Your task to perform on an android device: Toggle the flashlight Image 0: 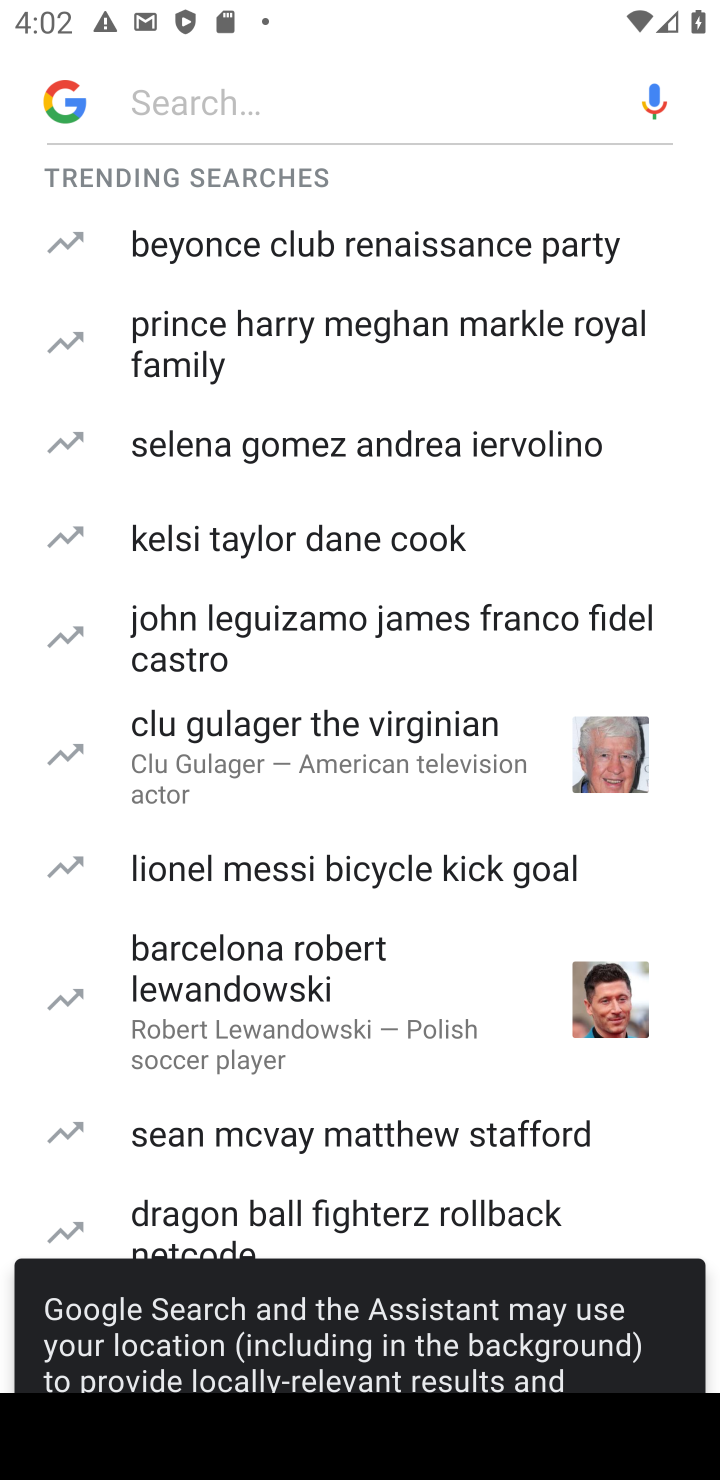
Step 0: press home button
Your task to perform on an android device: Toggle the flashlight Image 1: 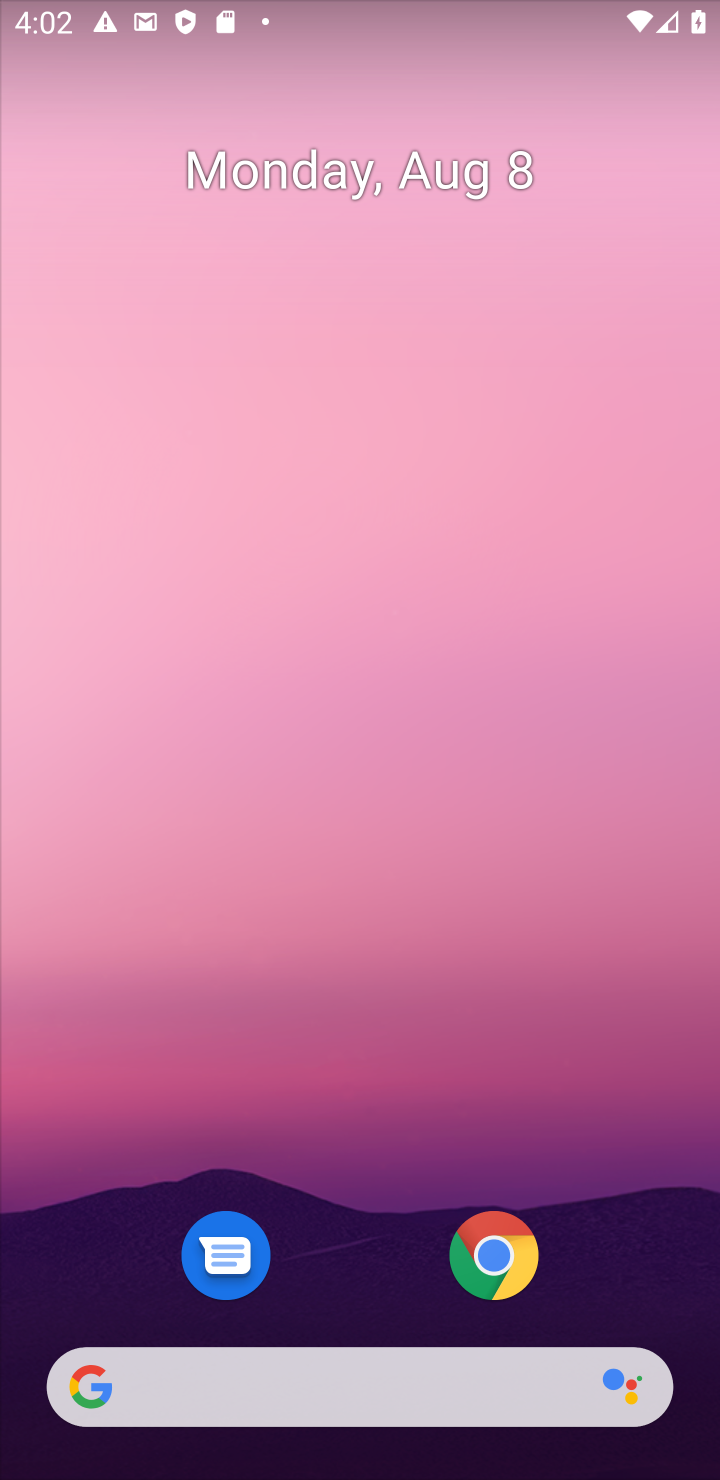
Step 1: drag from (319, 1367) to (525, 341)
Your task to perform on an android device: Toggle the flashlight Image 2: 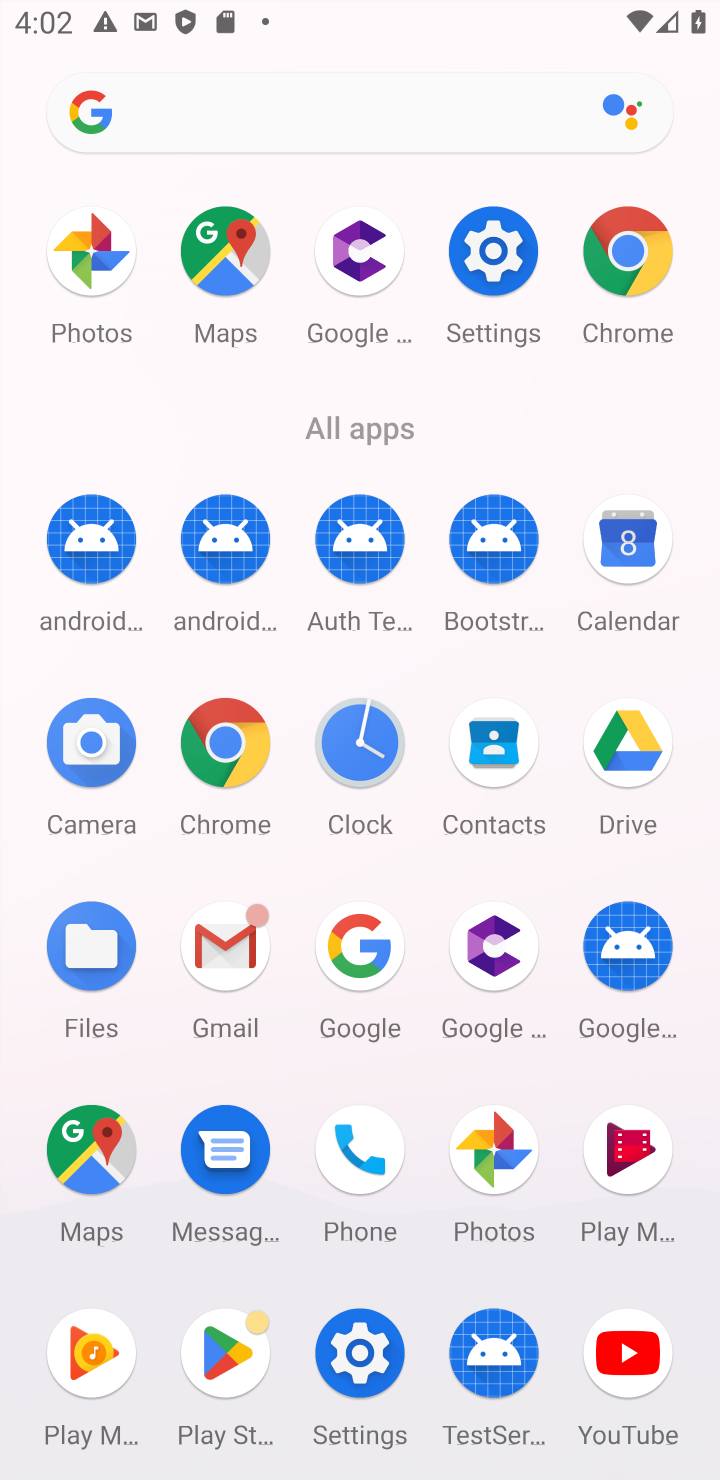
Step 2: click (491, 252)
Your task to perform on an android device: Toggle the flashlight Image 3: 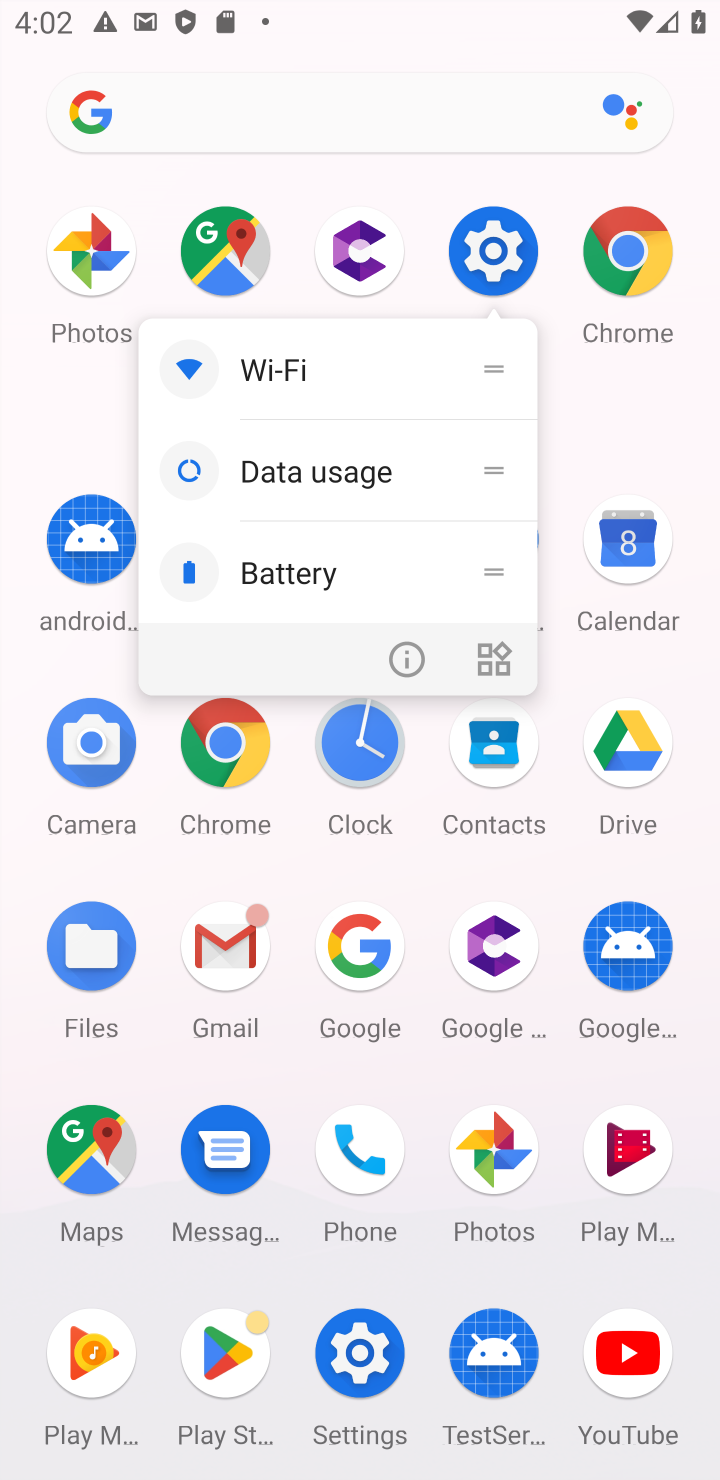
Step 3: click (488, 248)
Your task to perform on an android device: Toggle the flashlight Image 4: 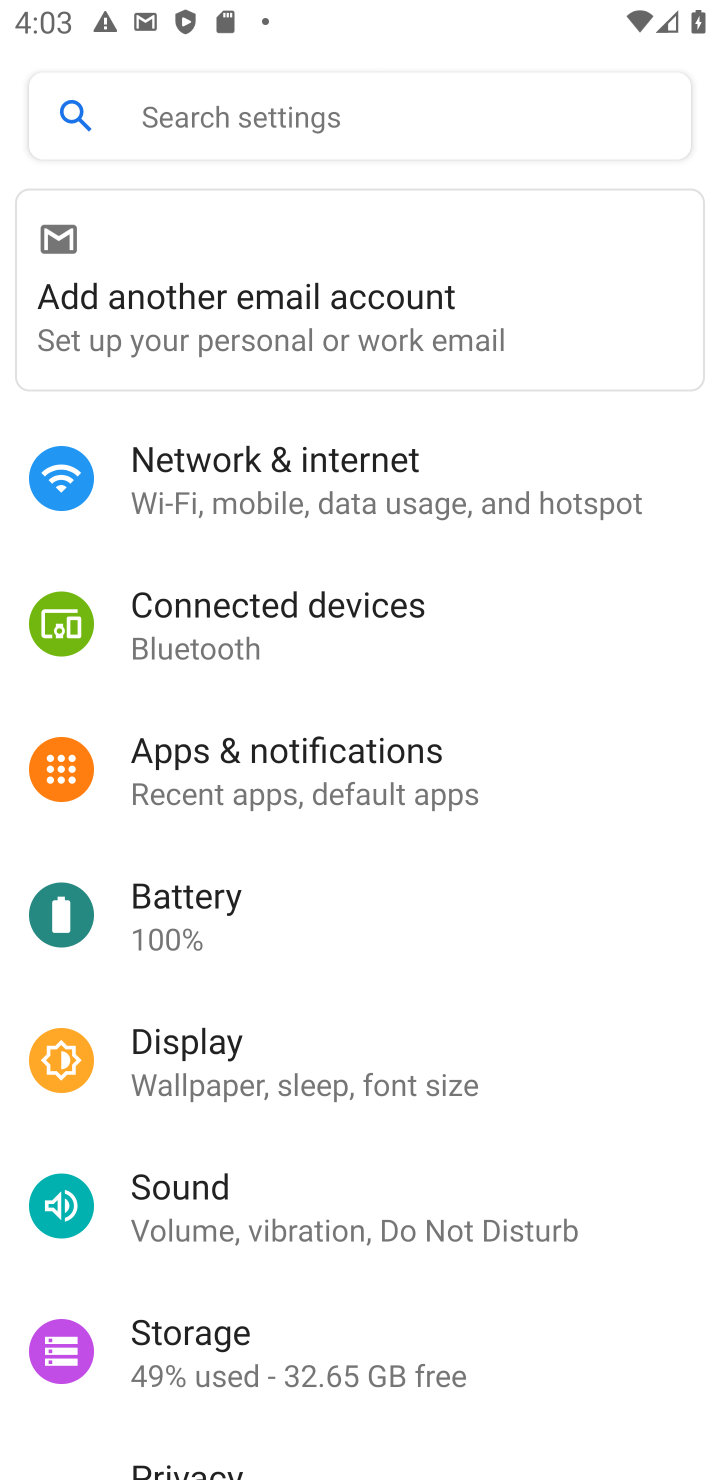
Step 4: drag from (405, 898) to (501, 658)
Your task to perform on an android device: Toggle the flashlight Image 5: 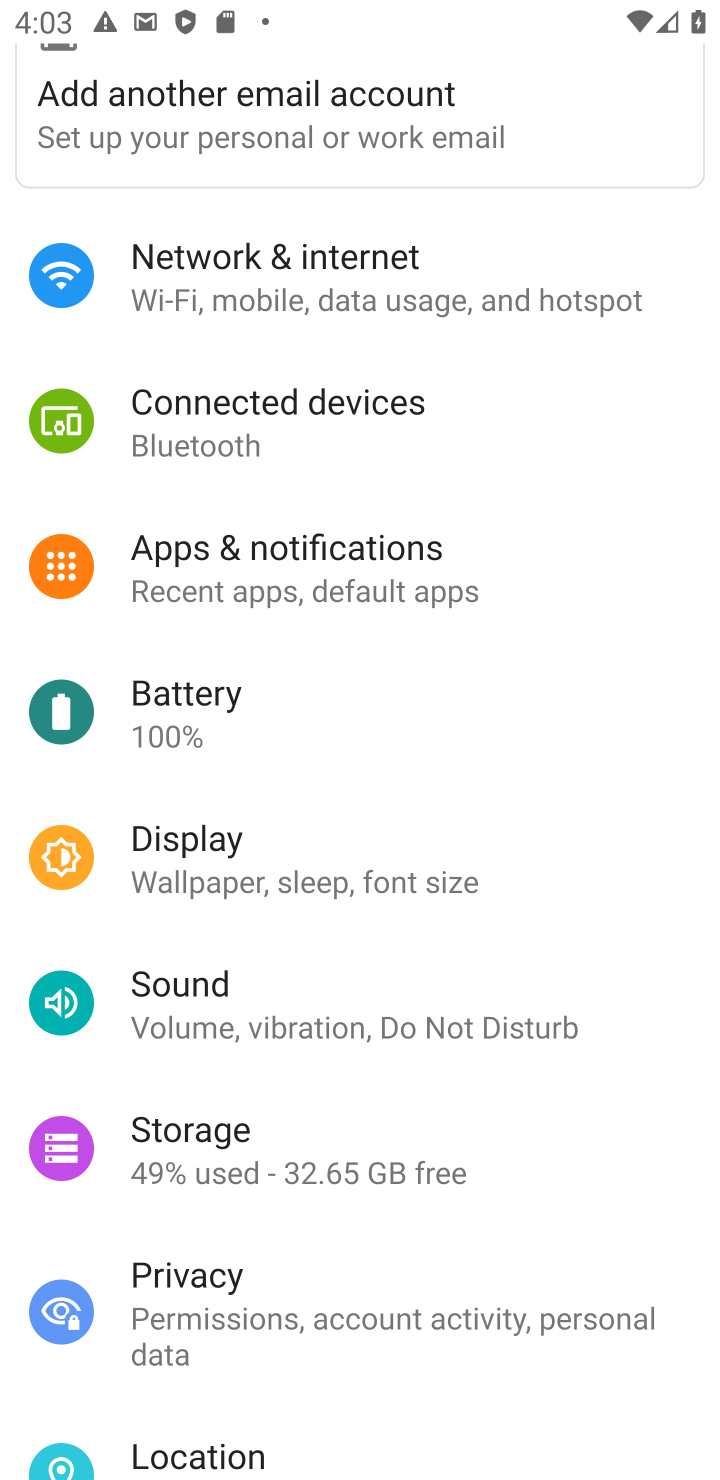
Step 5: drag from (215, 923) to (365, 713)
Your task to perform on an android device: Toggle the flashlight Image 6: 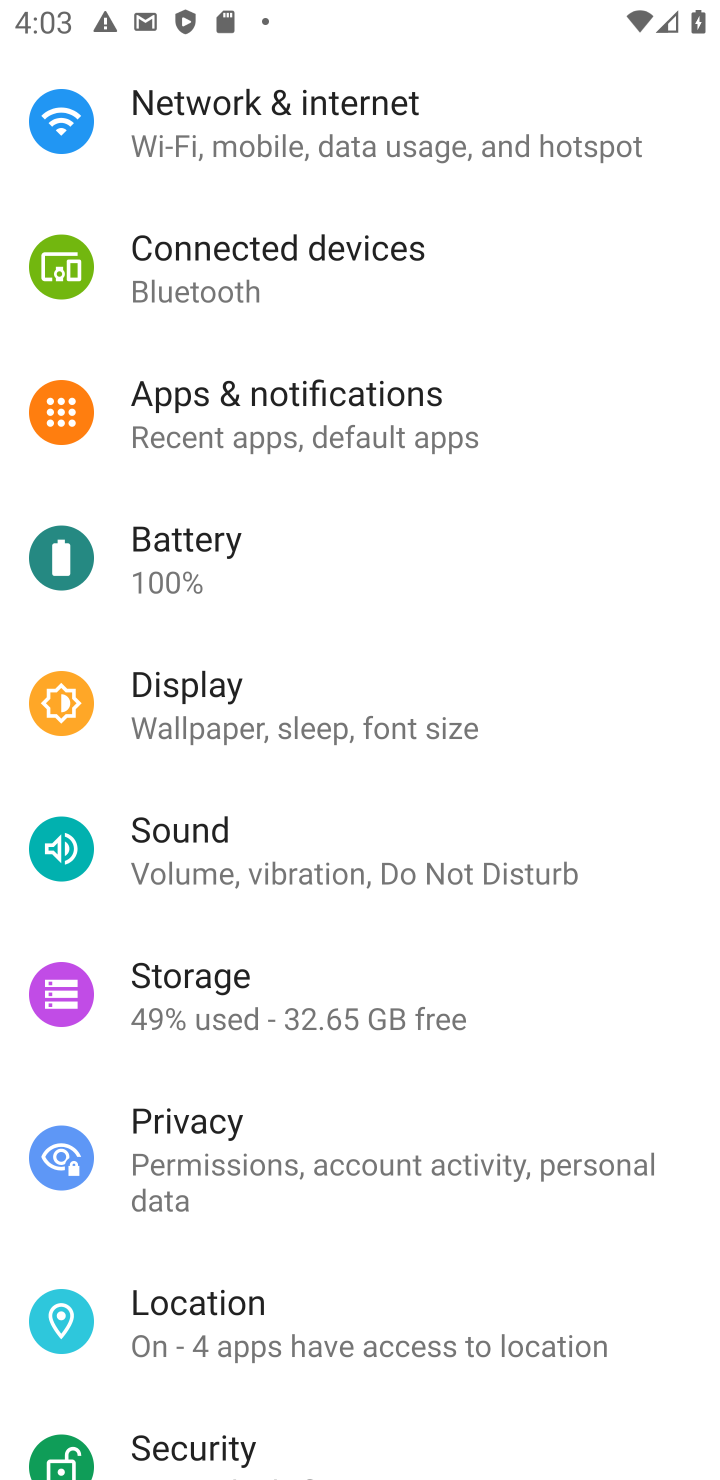
Step 6: drag from (475, 344) to (377, 945)
Your task to perform on an android device: Toggle the flashlight Image 7: 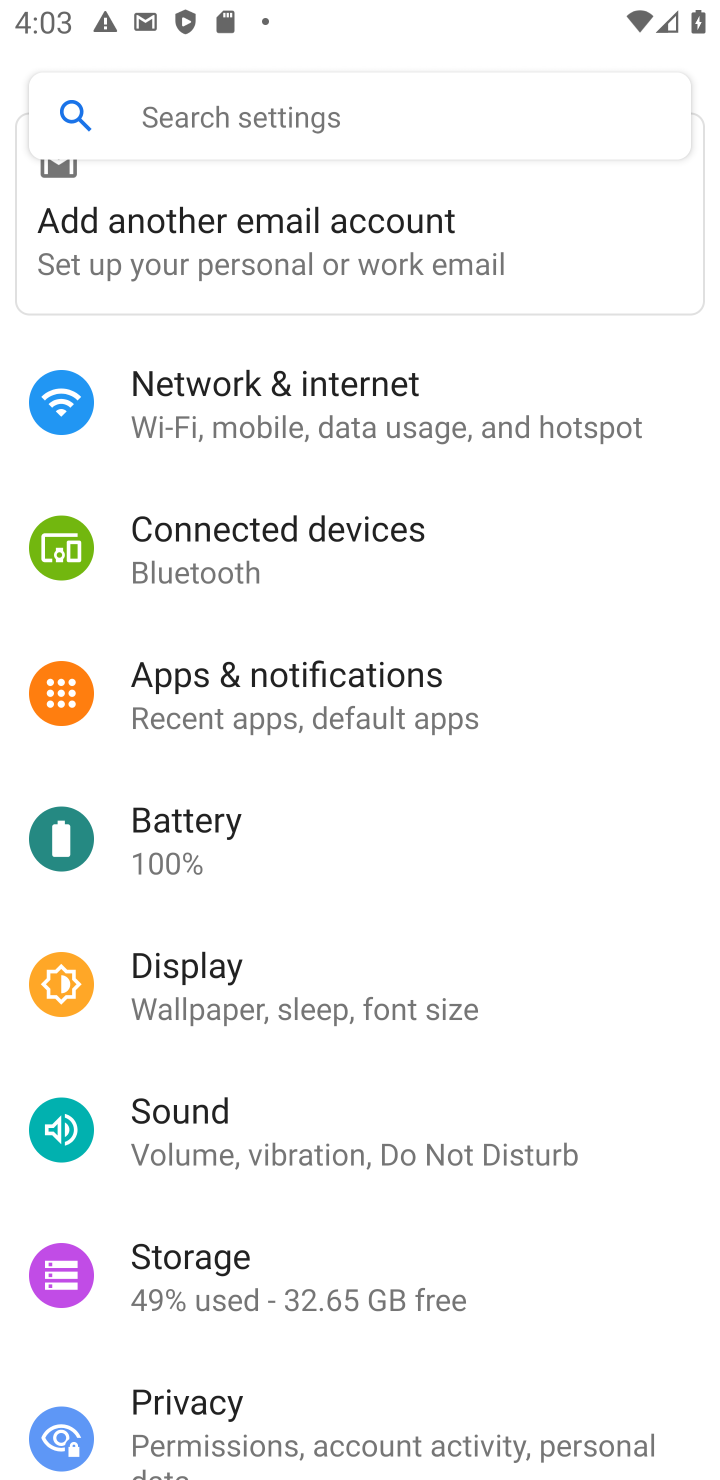
Step 7: click (332, 128)
Your task to perform on an android device: Toggle the flashlight Image 8: 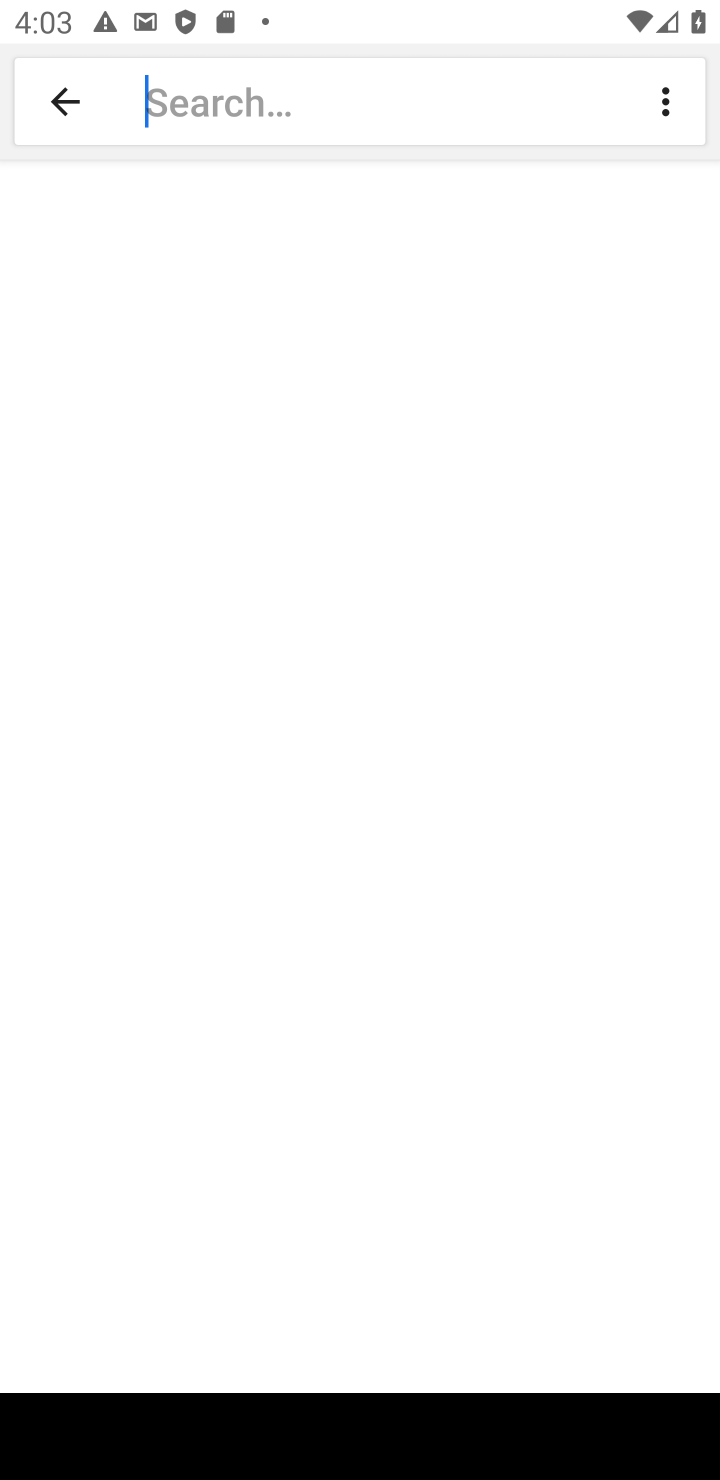
Step 8: type "flashlight"
Your task to perform on an android device: Toggle the flashlight Image 9: 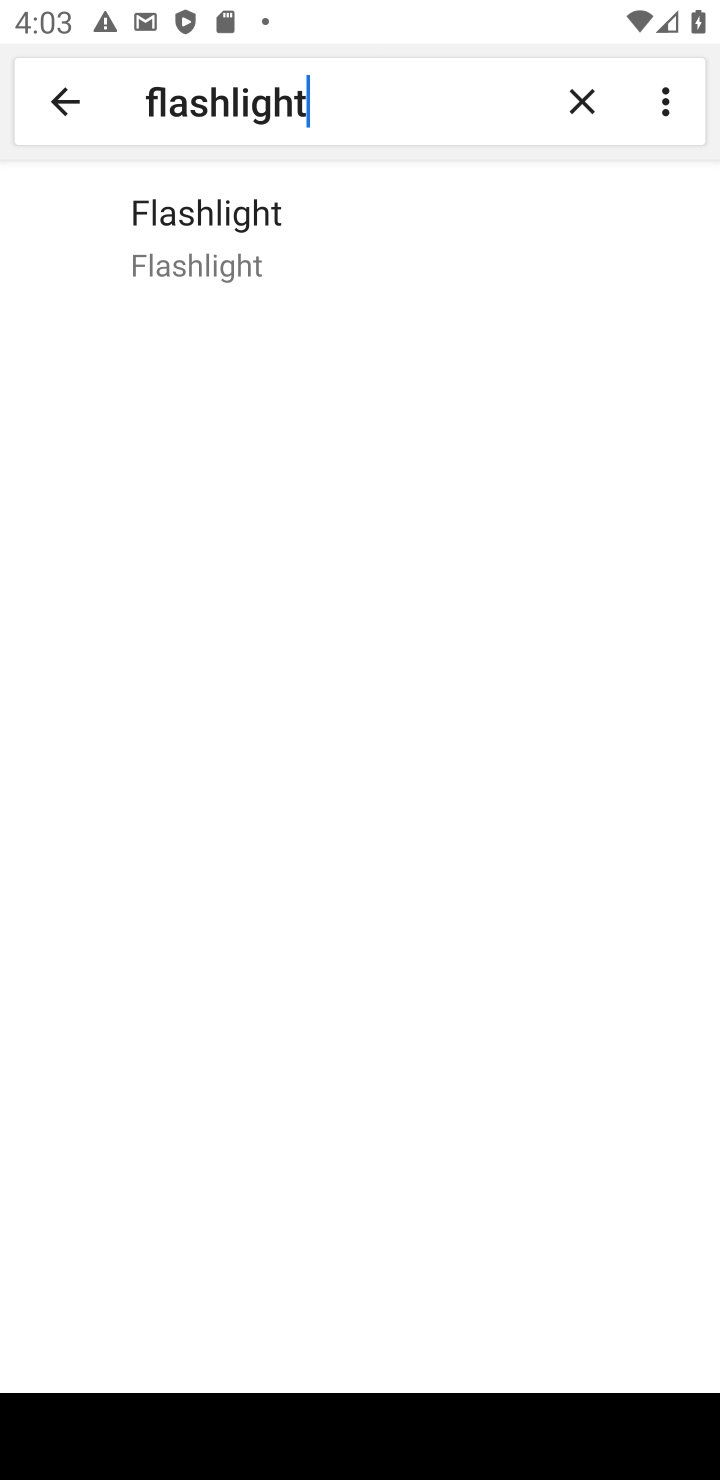
Step 9: click (217, 267)
Your task to perform on an android device: Toggle the flashlight Image 10: 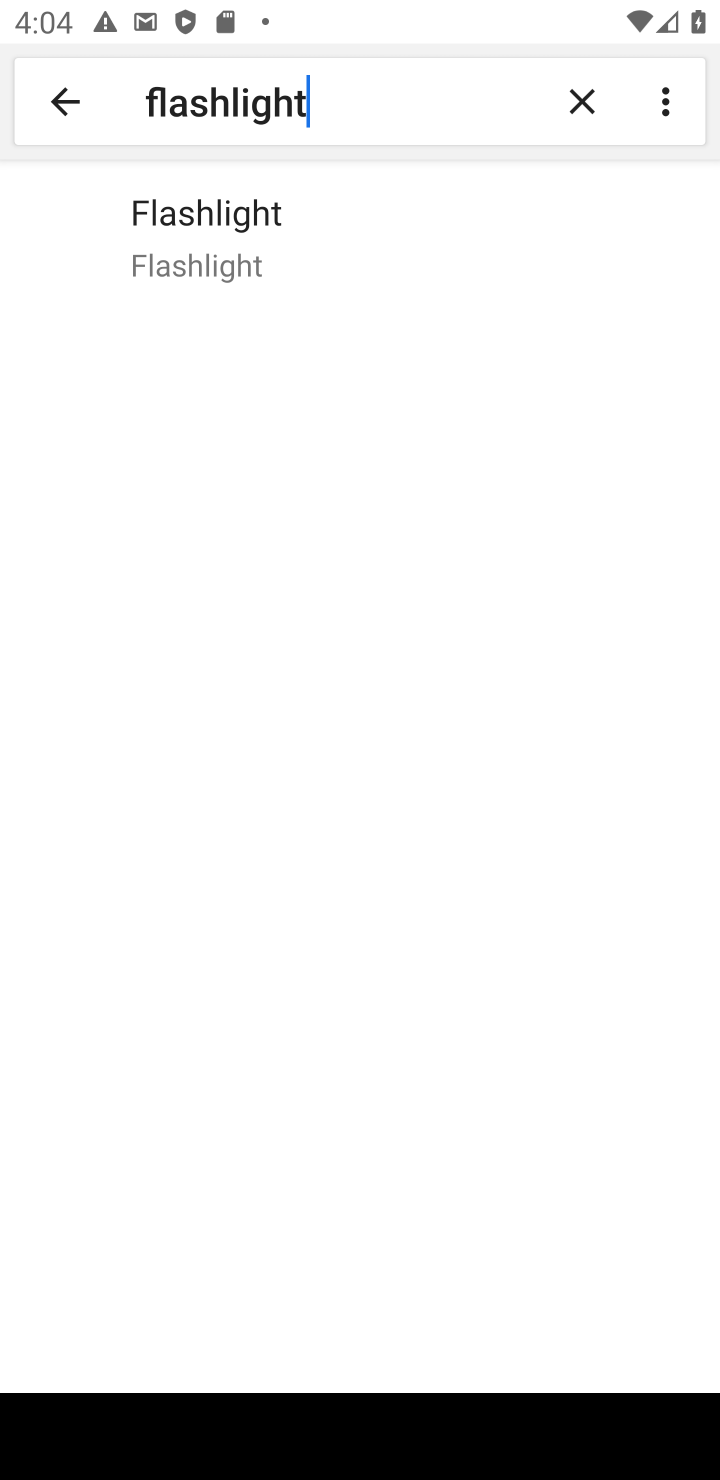
Step 10: task complete